Your task to perform on an android device: toggle sleep mode Image 0: 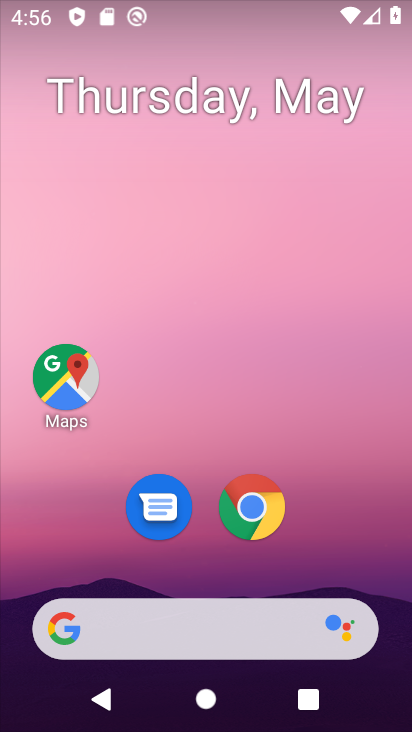
Step 0: drag from (253, 450) to (207, 22)
Your task to perform on an android device: toggle sleep mode Image 1: 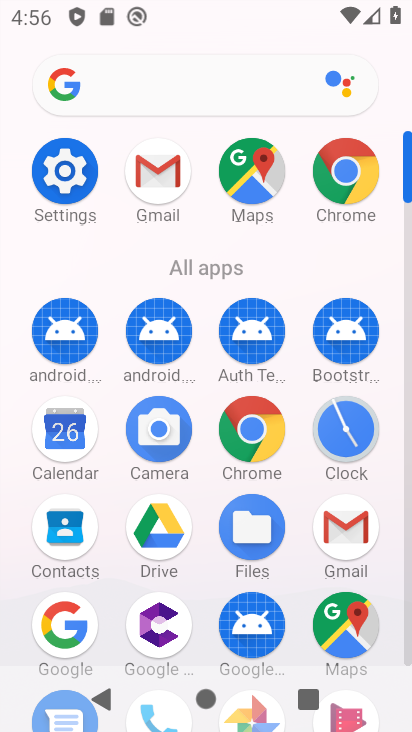
Step 1: click (74, 169)
Your task to perform on an android device: toggle sleep mode Image 2: 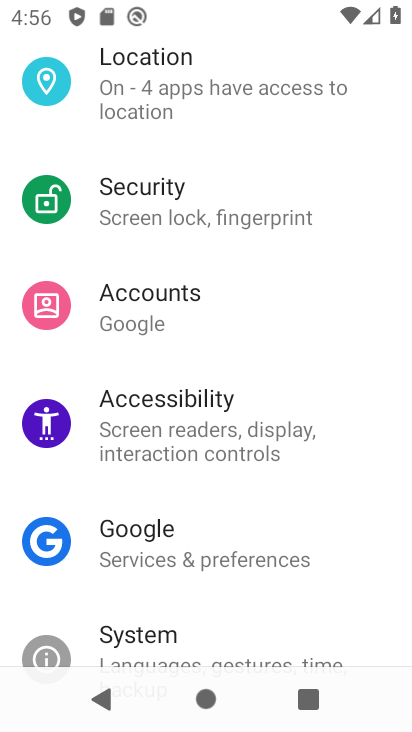
Step 2: drag from (257, 574) to (318, 713)
Your task to perform on an android device: toggle sleep mode Image 3: 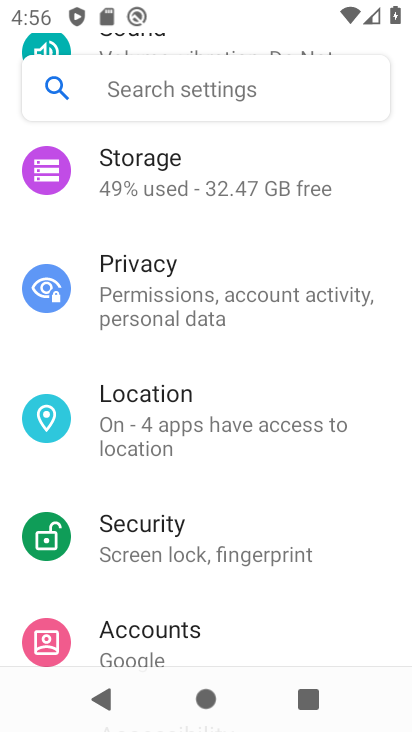
Step 3: drag from (245, 309) to (283, 716)
Your task to perform on an android device: toggle sleep mode Image 4: 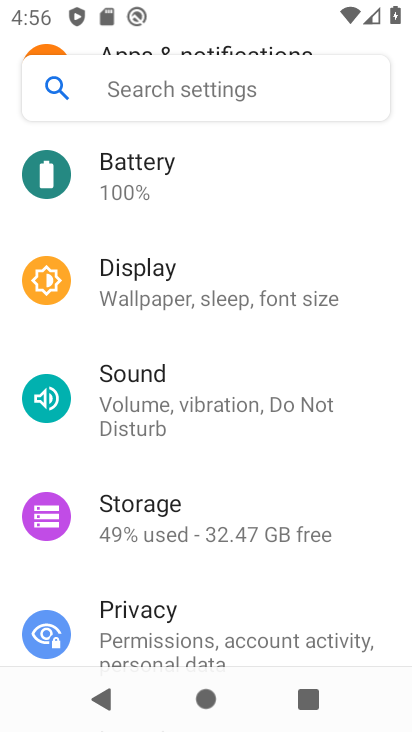
Step 4: click (208, 302)
Your task to perform on an android device: toggle sleep mode Image 5: 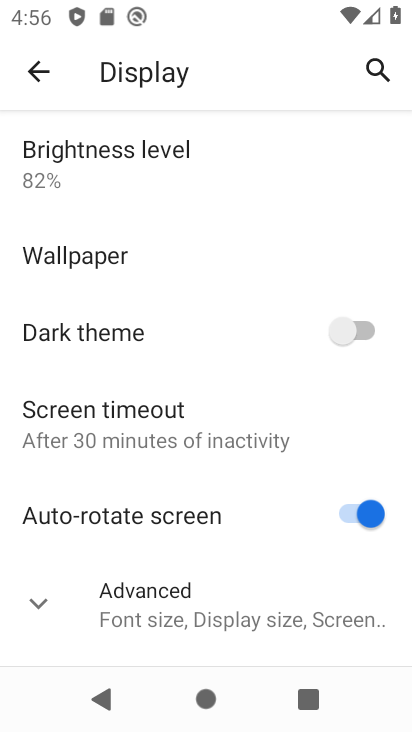
Step 5: click (153, 423)
Your task to perform on an android device: toggle sleep mode Image 6: 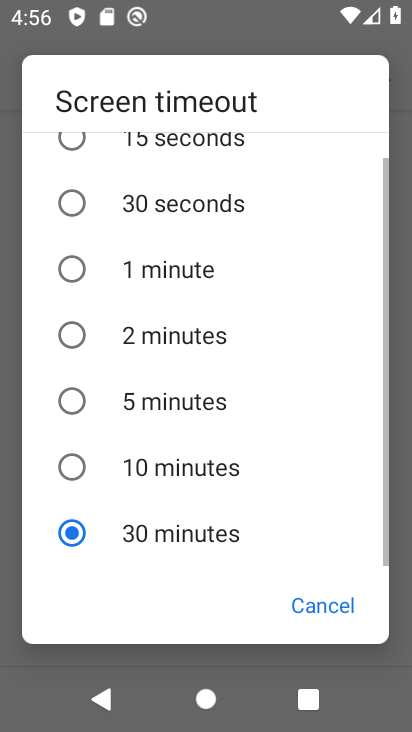
Step 6: click (144, 469)
Your task to perform on an android device: toggle sleep mode Image 7: 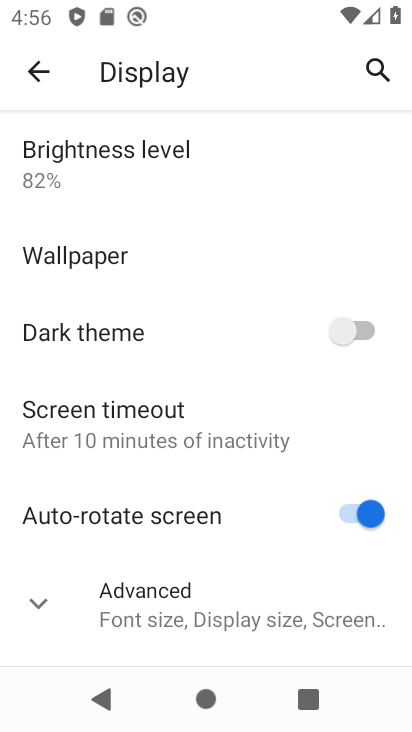
Step 7: task complete